Your task to perform on an android device: clear all cookies in the chrome app Image 0: 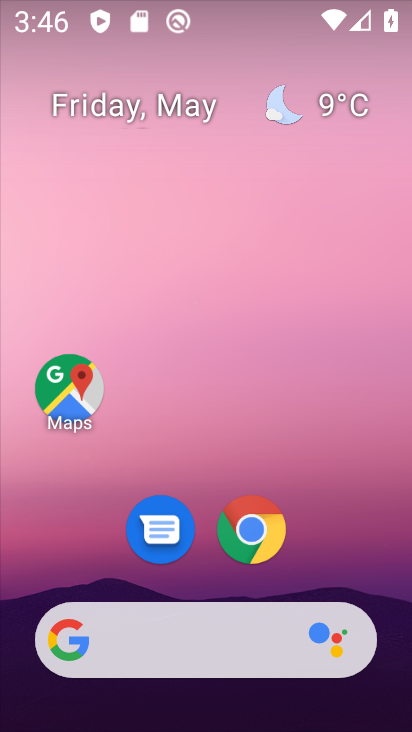
Step 0: click (274, 538)
Your task to perform on an android device: clear all cookies in the chrome app Image 1: 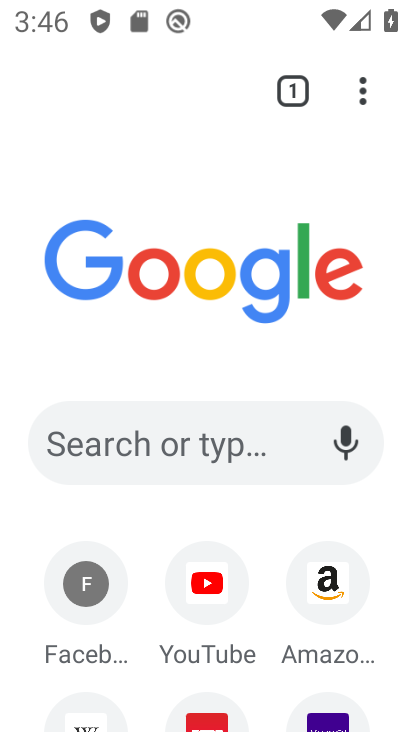
Step 1: drag from (365, 108) to (309, 539)
Your task to perform on an android device: clear all cookies in the chrome app Image 2: 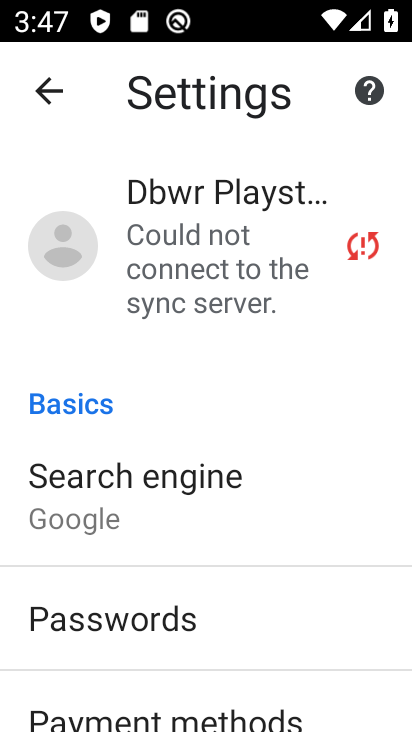
Step 2: drag from (226, 666) to (364, 307)
Your task to perform on an android device: clear all cookies in the chrome app Image 3: 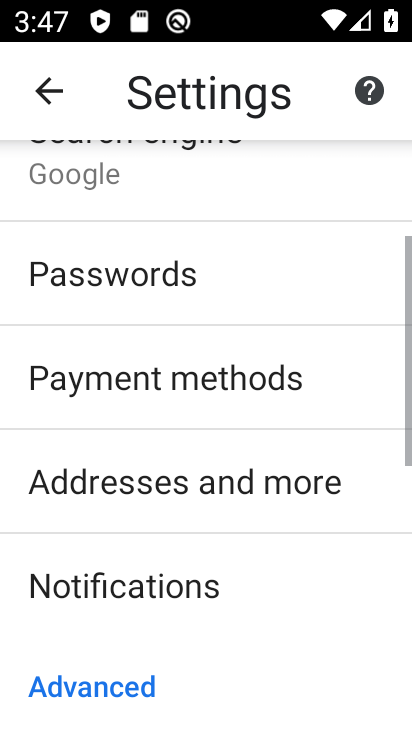
Step 3: drag from (170, 568) to (296, 270)
Your task to perform on an android device: clear all cookies in the chrome app Image 4: 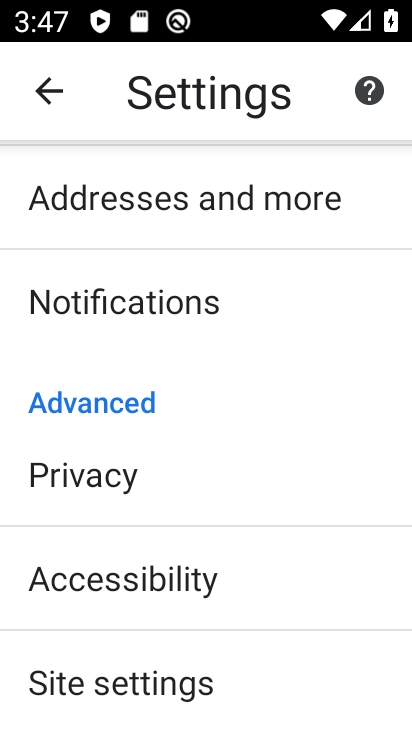
Step 4: drag from (188, 572) to (275, 330)
Your task to perform on an android device: clear all cookies in the chrome app Image 5: 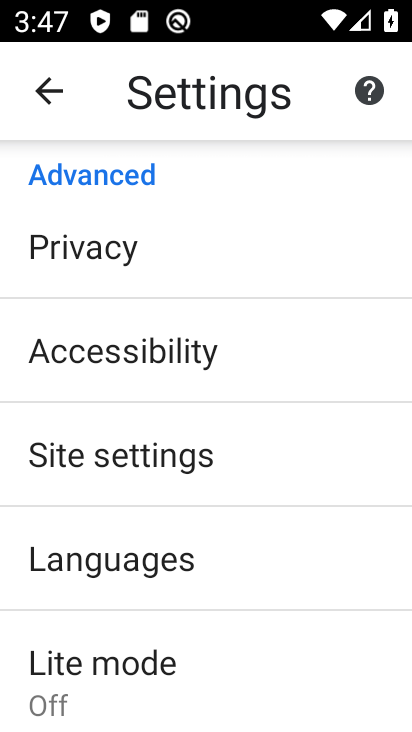
Step 5: drag from (146, 663) to (210, 711)
Your task to perform on an android device: clear all cookies in the chrome app Image 6: 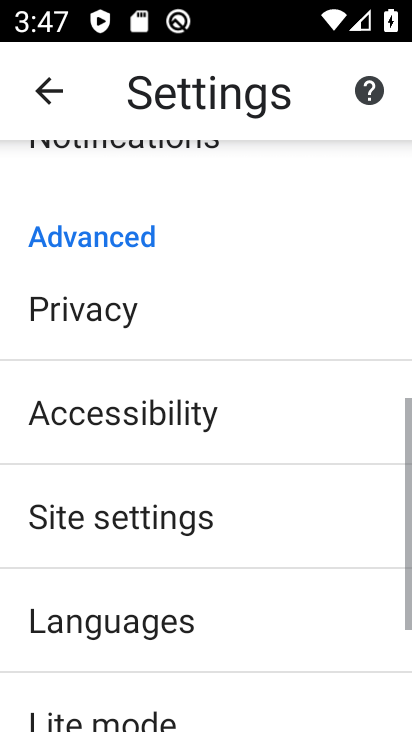
Step 6: click (133, 320)
Your task to perform on an android device: clear all cookies in the chrome app Image 7: 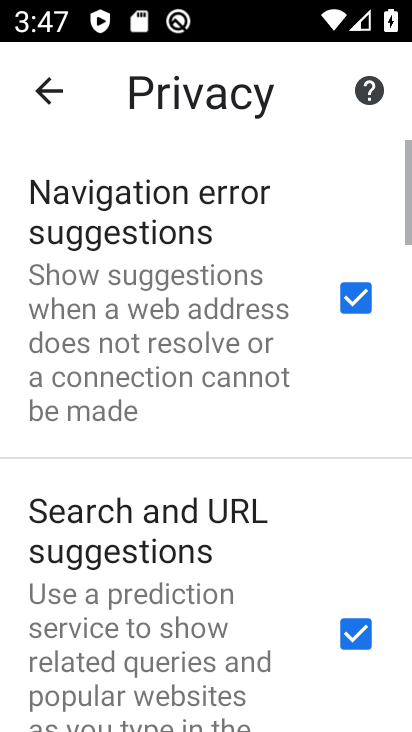
Step 7: drag from (119, 655) to (227, 257)
Your task to perform on an android device: clear all cookies in the chrome app Image 8: 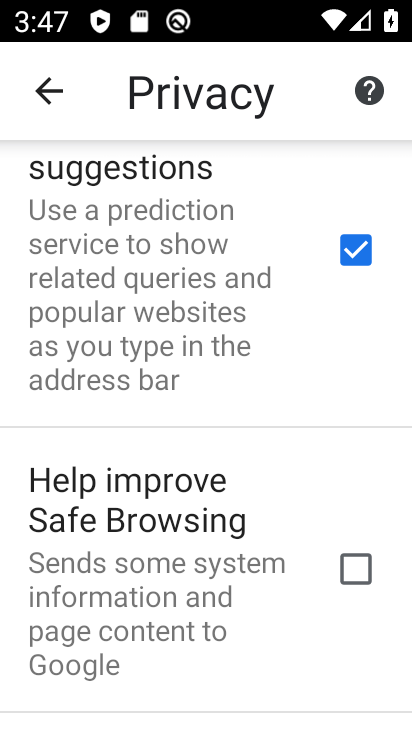
Step 8: drag from (147, 663) to (264, 179)
Your task to perform on an android device: clear all cookies in the chrome app Image 9: 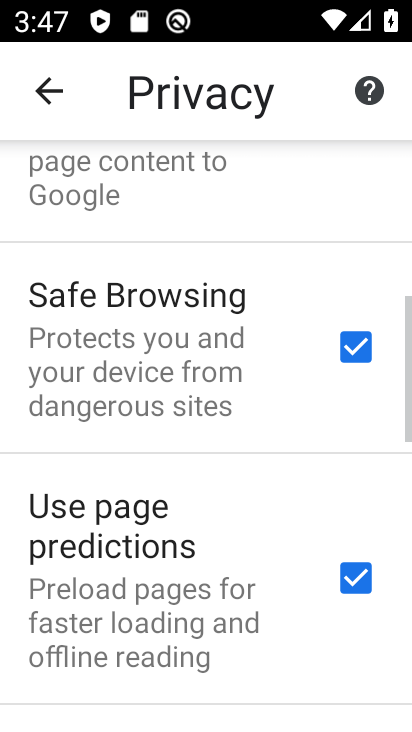
Step 9: drag from (128, 702) to (259, 136)
Your task to perform on an android device: clear all cookies in the chrome app Image 10: 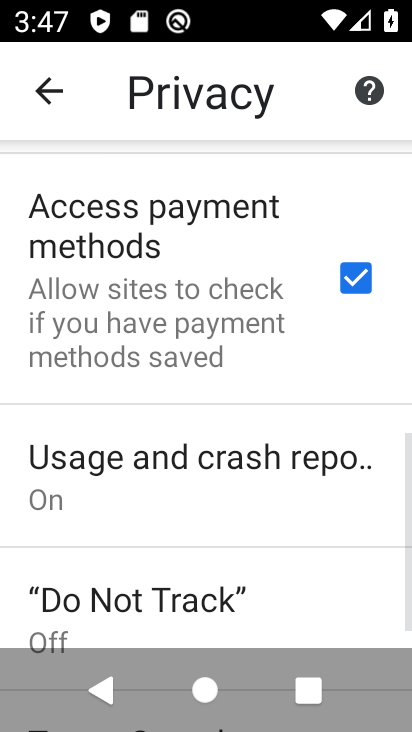
Step 10: drag from (139, 538) to (229, 168)
Your task to perform on an android device: clear all cookies in the chrome app Image 11: 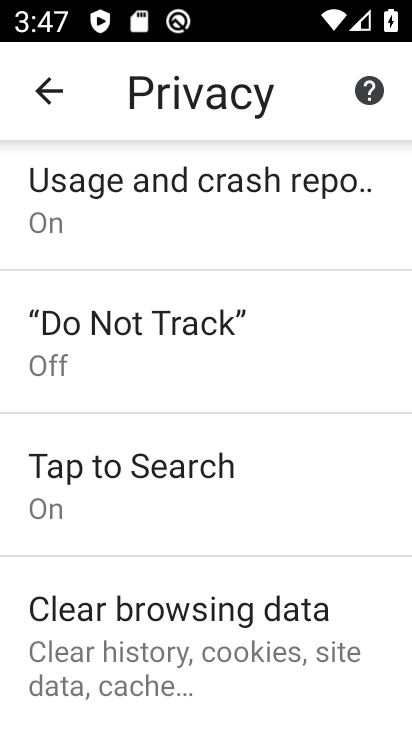
Step 11: drag from (155, 610) to (243, 281)
Your task to perform on an android device: clear all cookies in the chrome app Image 12: 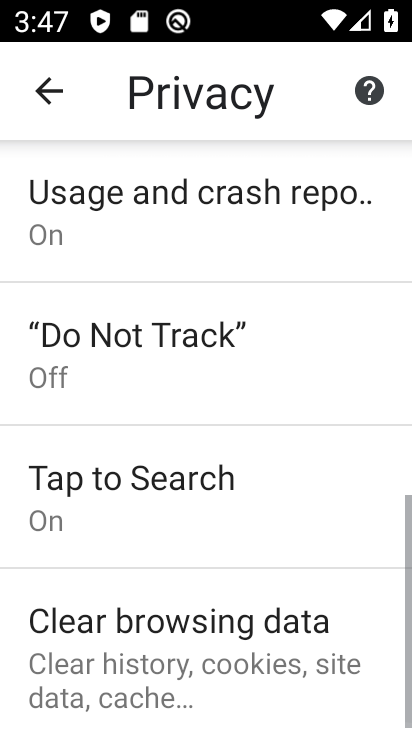
Step 12: click (143, 677)
Your task to perform on an android device: clear all cookies in the chrome app Image 13: 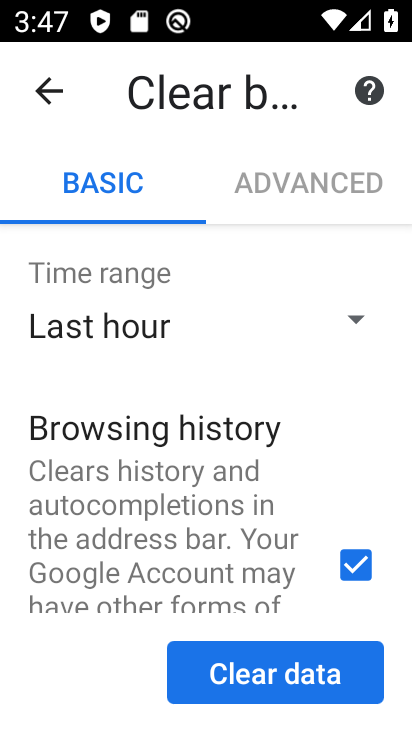
Step 13: drag from (198, 539) to (260, 320)
Your task to perform on an android device: clear all cookies in the chrome app Image 14: 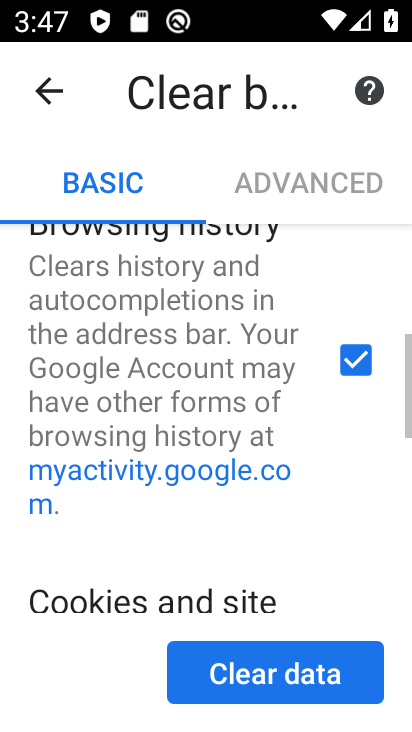
Step 14: click (360, 359)
Your task to perform on an android device: clear all cookies in the chrome app Image 15: 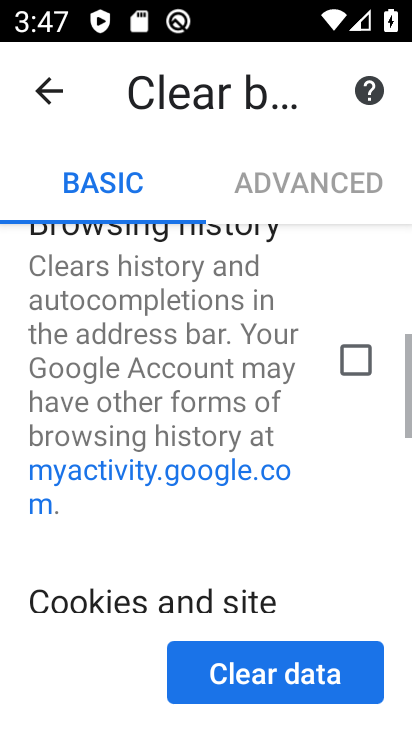
Step 15: drag from (184, 520) to (236, 260)
Your task to perform on an android device: clear all cookies in the chrome app Image 16: 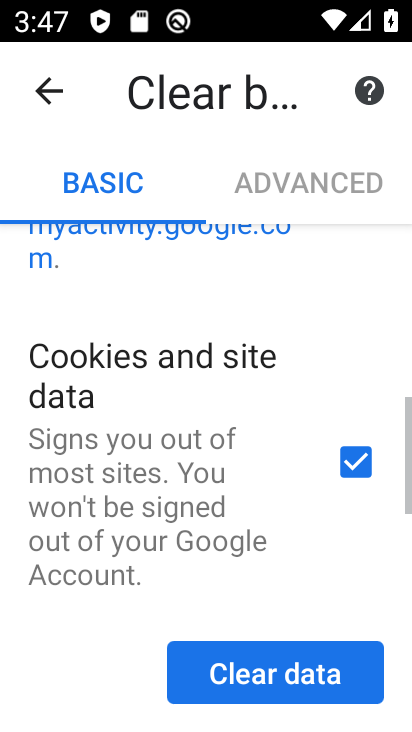
Step 16: drag from (148, 578) to (205, 378)
Your task to perform on an android device: clear all cookies in the chrome app Image 17: 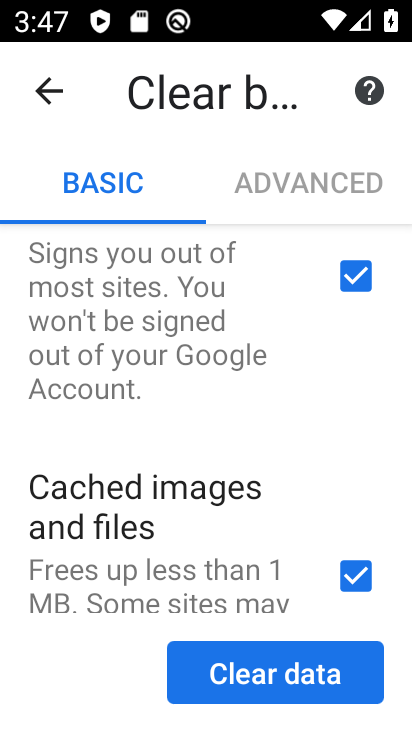
Step 17: drag from (173, 570) to (210, 408)
Your task to perform on an android device: clear all cookies in the chrome app Image 18: 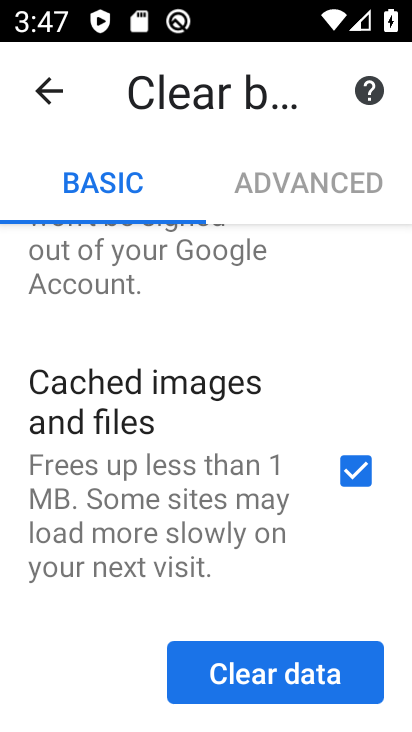
Step 18: click (353, 489)
Your task to perform on an android device: clear all cookies in the chrome app Image 19: 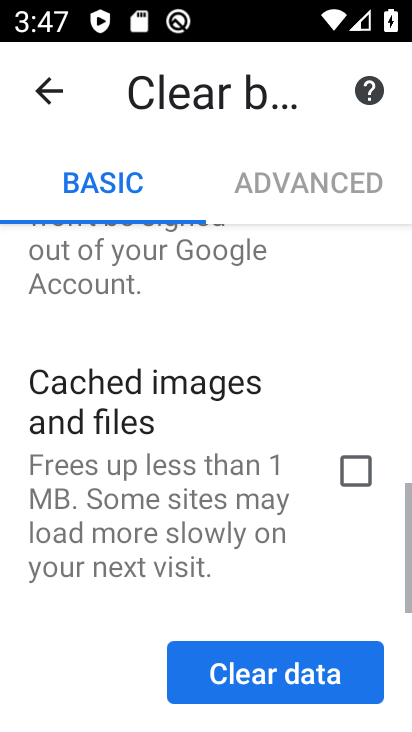
Step 19: click (333, 682)
Your task to perform on an android device: clear all cookies in the chrome app Image 20: 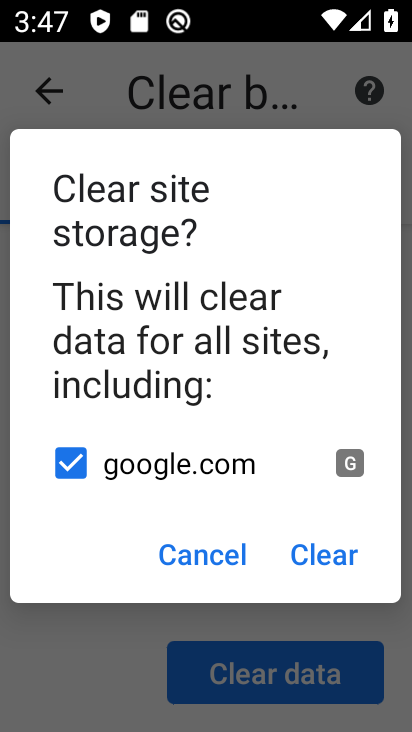
Step 20: click (320, 558)
Your task to perform on an android device: clear all cookies in the chrome app Image 21: 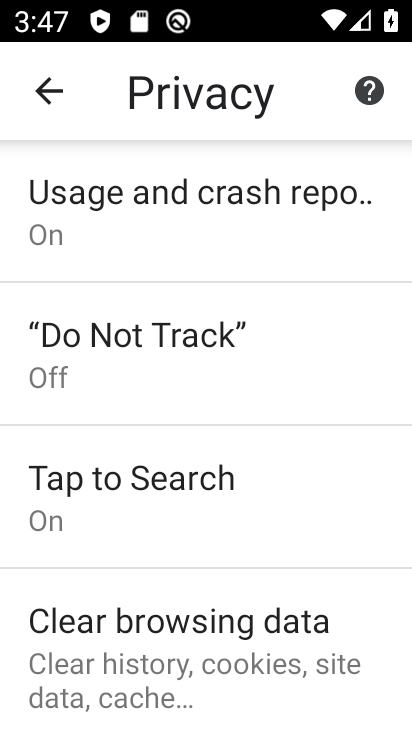
Step 21: task complete